Your task to perform on an android device: see creations saved in the google photos Image 0: 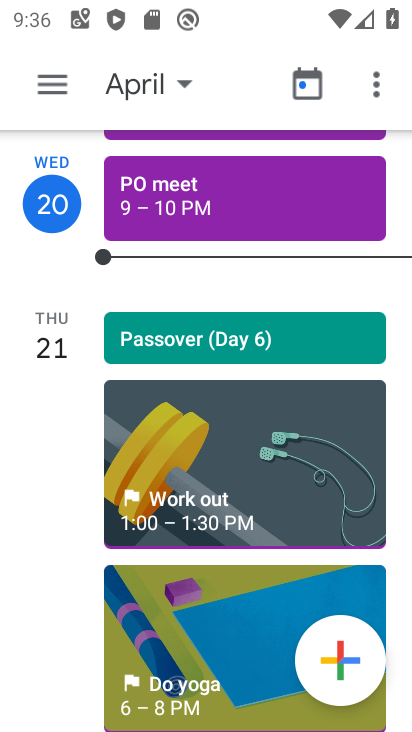
Step 0: press home button
Your task to perform on an android device: see creations saved in the google photos Image 1: 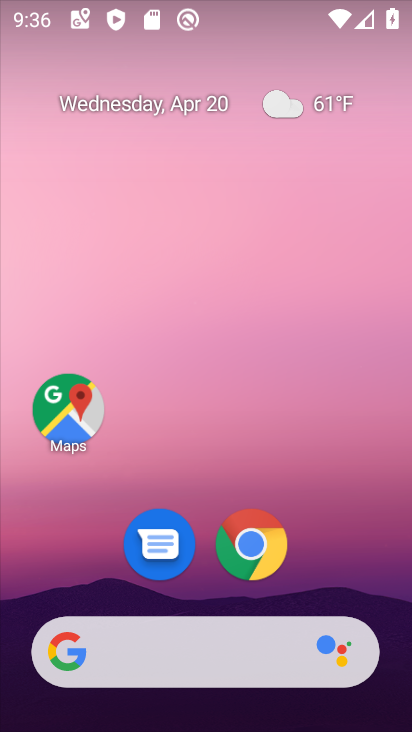
Step 1: drag from (356, 560) to (278, 4)
Your task to perform on an android device: see creations saved in the google photos Image 2: 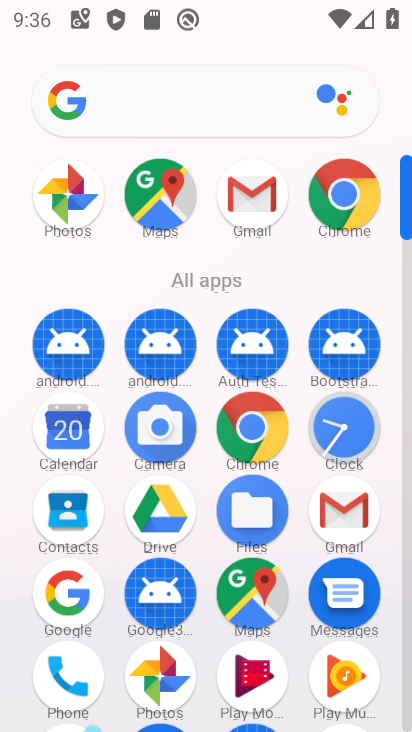
Step 2: click (64, 217)
Your task to perform on an android device: see creations saved in the google photos Image 3: 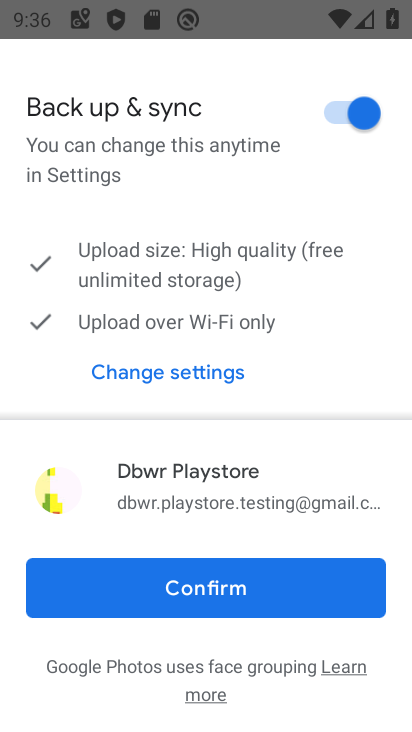
Step 3: click (203, 595)
Your task to perform on an android device: see creations saved in the google photos Image 4: 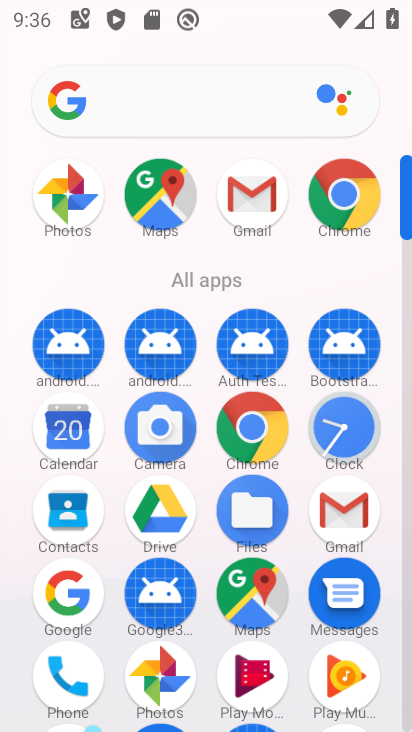
Step 4: click (56, 219)
Your task to perform on an android device: see creations saved in the google photos Image 5: 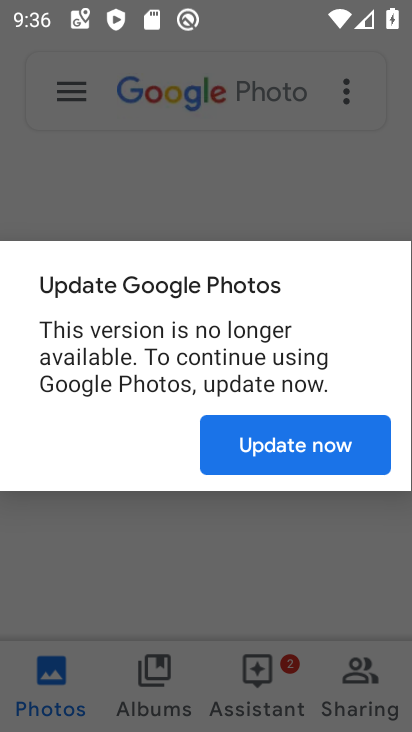
Step 5: click (262, 440)
Your task to perform on an android device: see creations saved in the google photos Image 6: 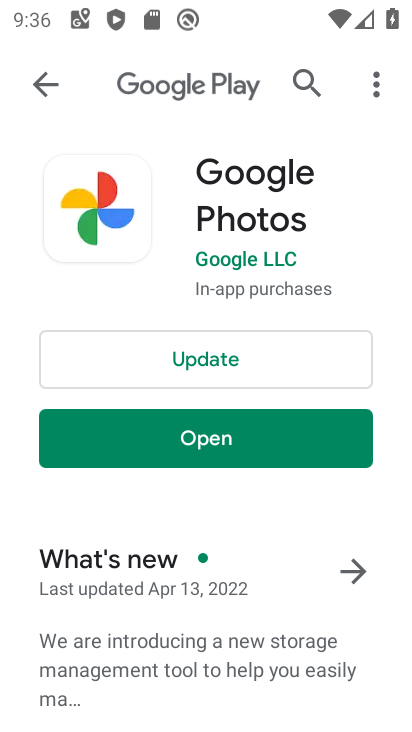
Step 6: click (207, 439)
Your task to perform on an android device: see creations saved in the google photos Image 7: 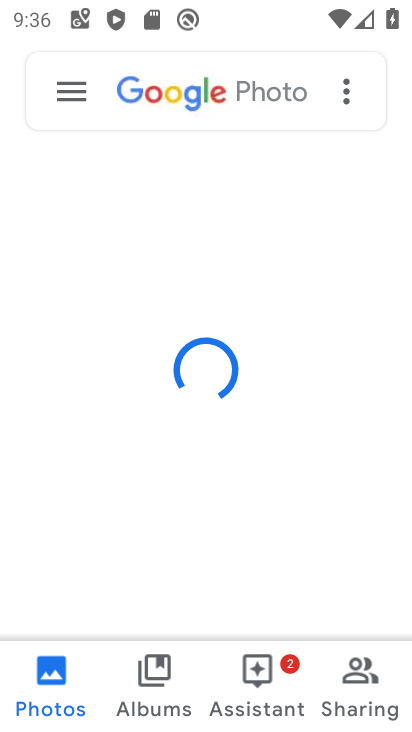
Step 7: click (199, 87)
Your task to perform on an android device: see creations saved in the google photos Image 8: 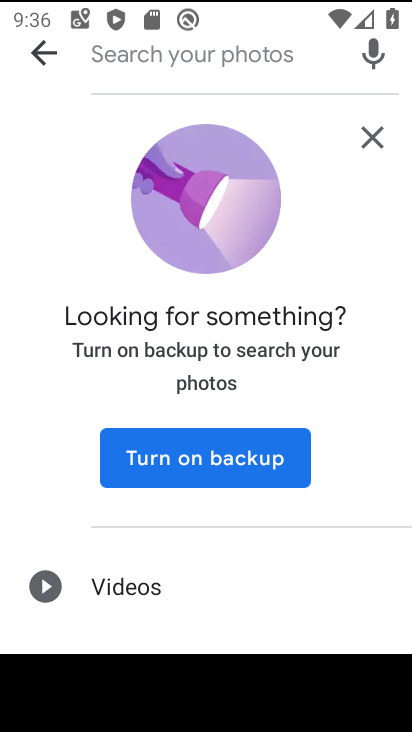
Step 8: drag from (190, 577) to (192, 127)
Your task to perform on an android device: see creations saved in the google photos Image 9: 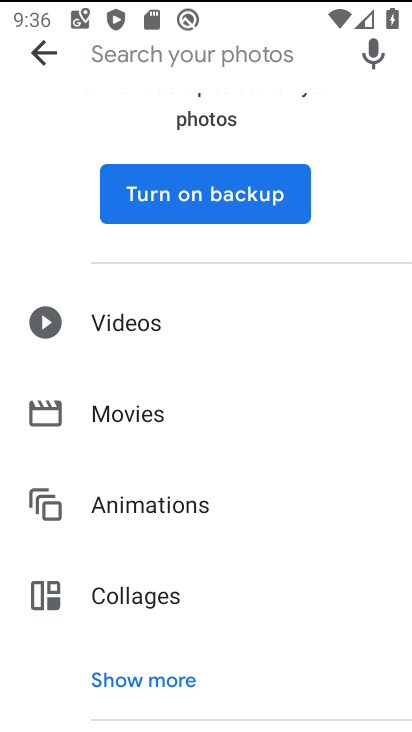
Step 9: click (135, 684)
Your task to perform on an android device: see creations saved in the google photos Image 10: 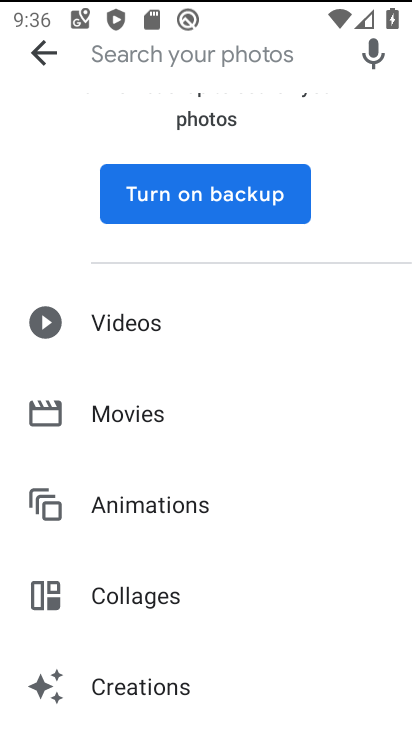
Step 10: click (135, 684)
Your task to perform on an android device: see creations saved in the google photos Image 11: 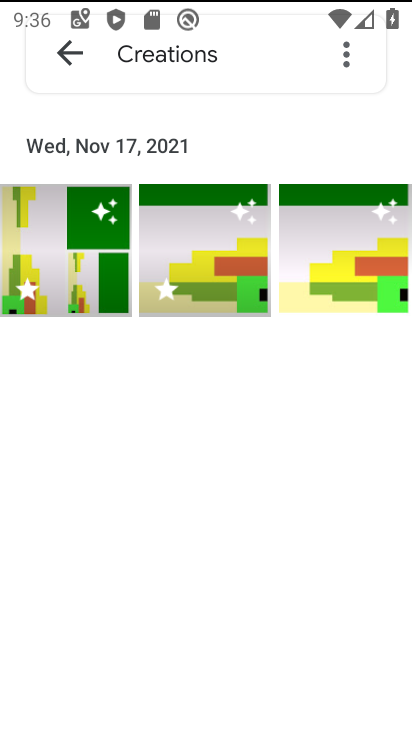
Step 11: task complete